Your task to perform on an android device: toggle show notifications on the lock screen Image 0: 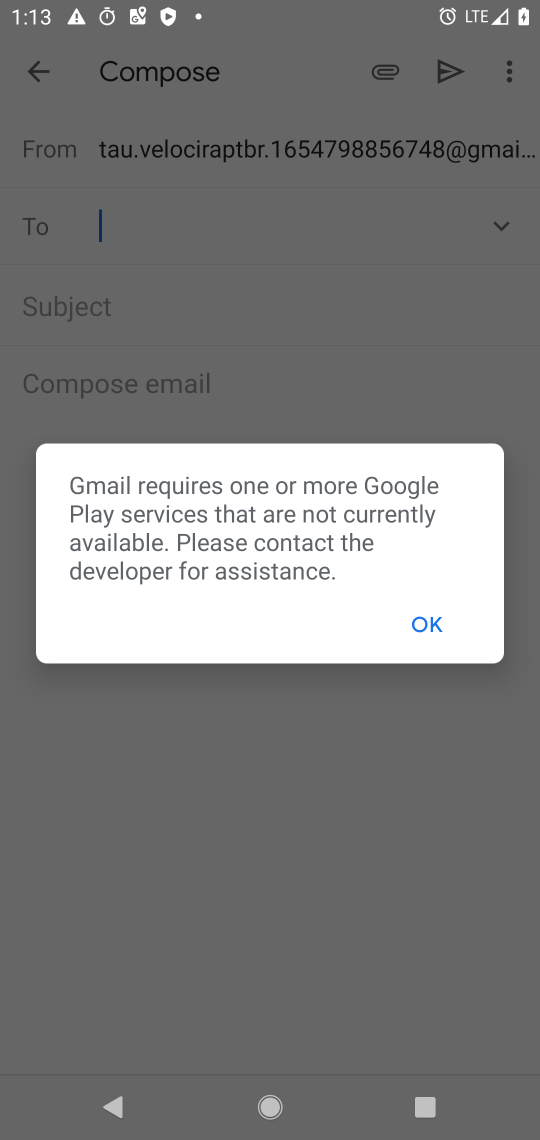
Step 0: press home button
Your task to perform on an android device: toggle show notifications on the lock screen Image 1: 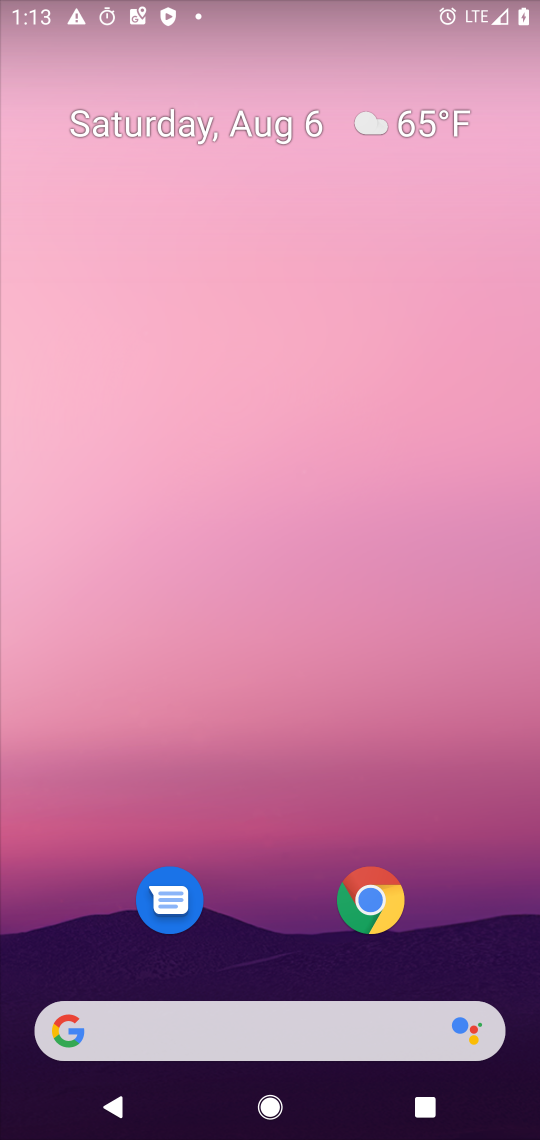
Step 1: drag from (262, 980) to (267, 157)
Your task to perform on an android device: toggle show notifications on the lock screen Image 2: 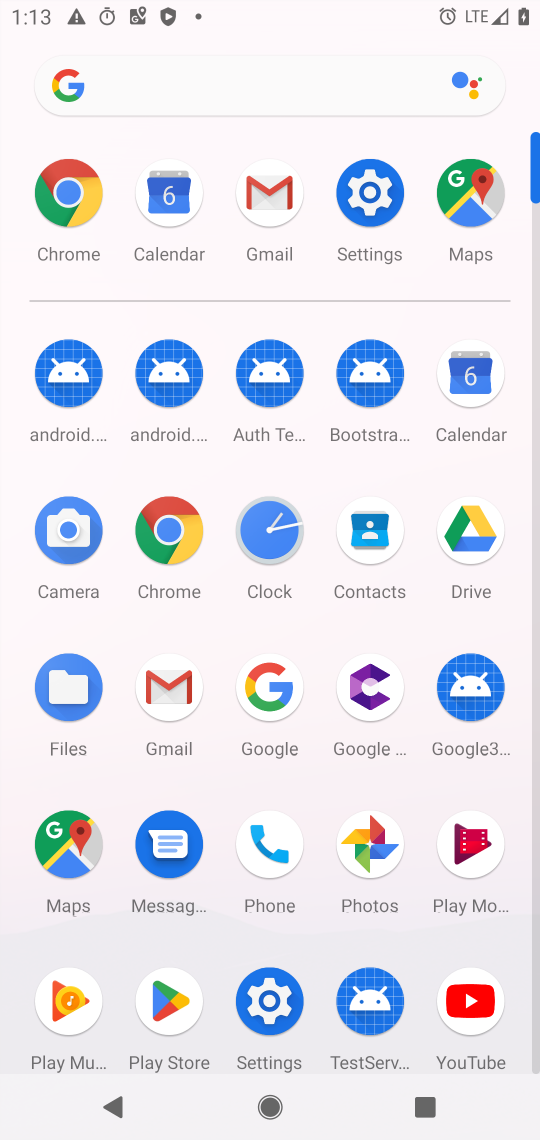
Step 2: click (364, 194)
Your task to perform on an android device: toggle show notifications on the lock screen Image 3: 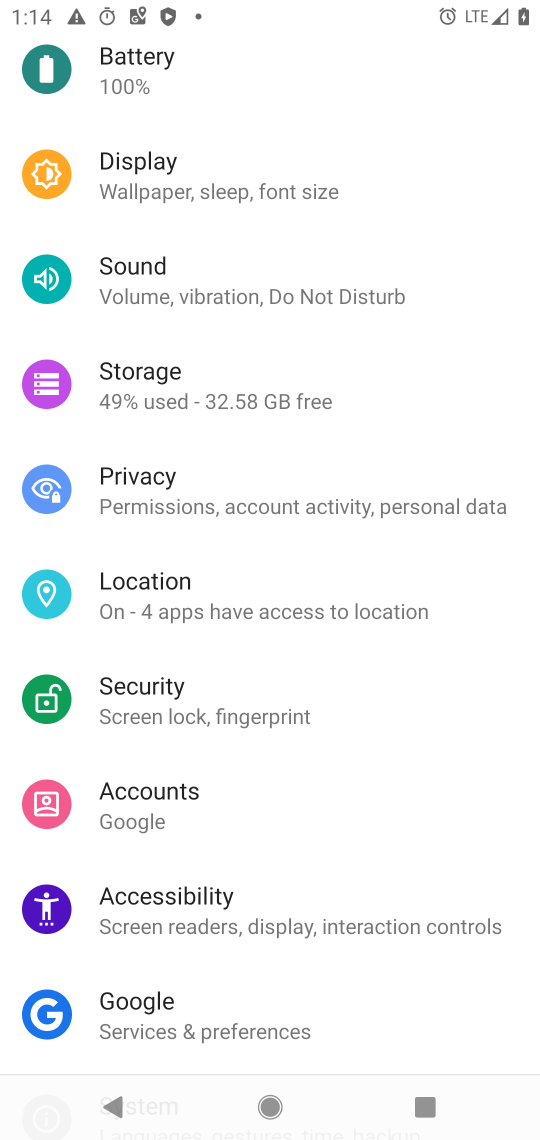
Step 3: drag from (252, 252) to (273, 836)
Your task to perform on an android device: toggle show notifications on the lock screen Image 4: 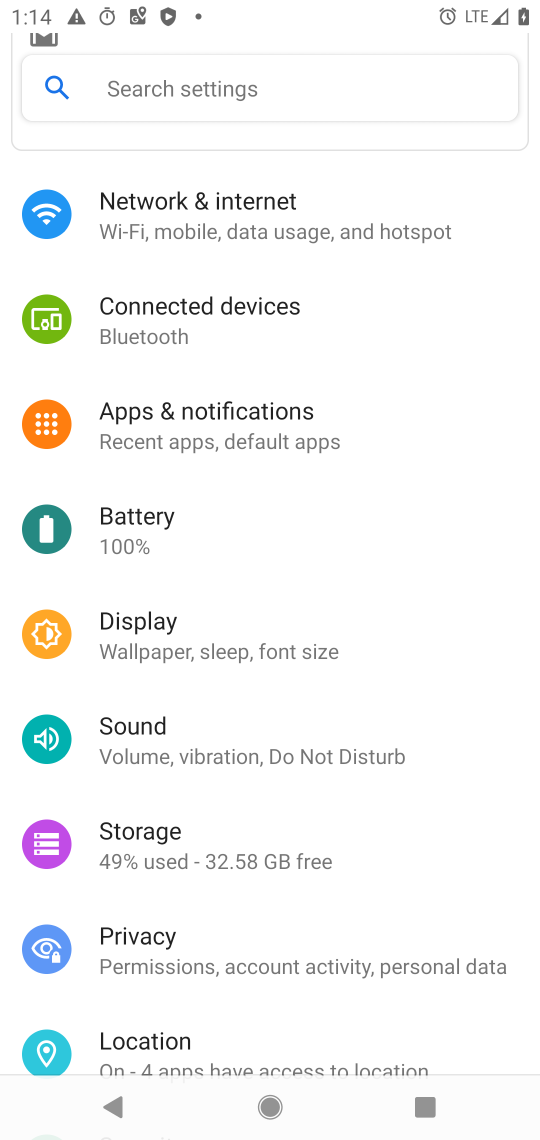
Step 4: click (182, 446)
Your task to perform on an android device: toggle show notifications on the lock screen Image 5: 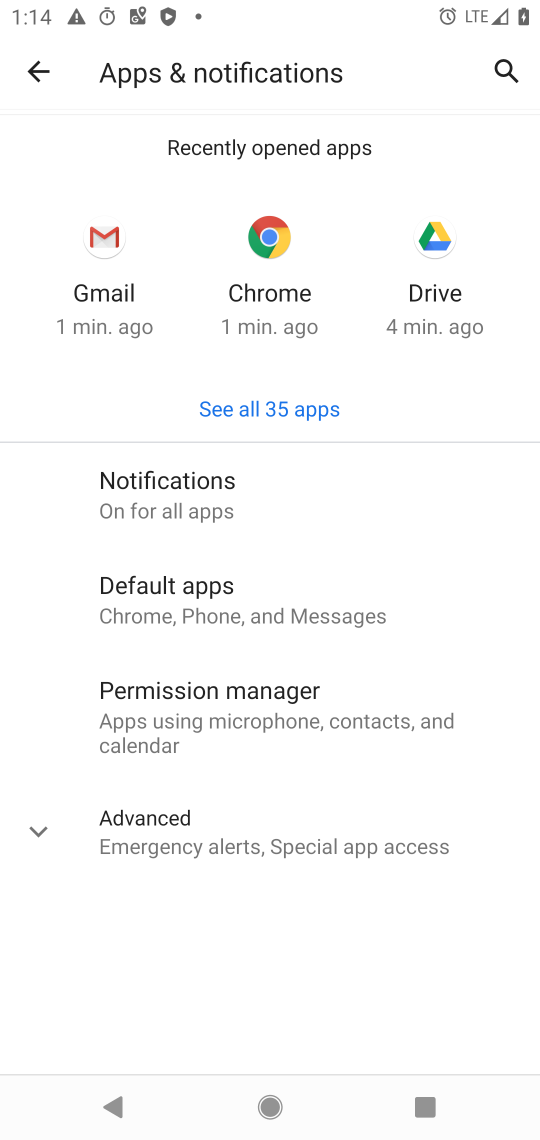
Step 5: click (169, 518)
Your task to perform on an android device: toggle show notifications on the lock screen Image 6: 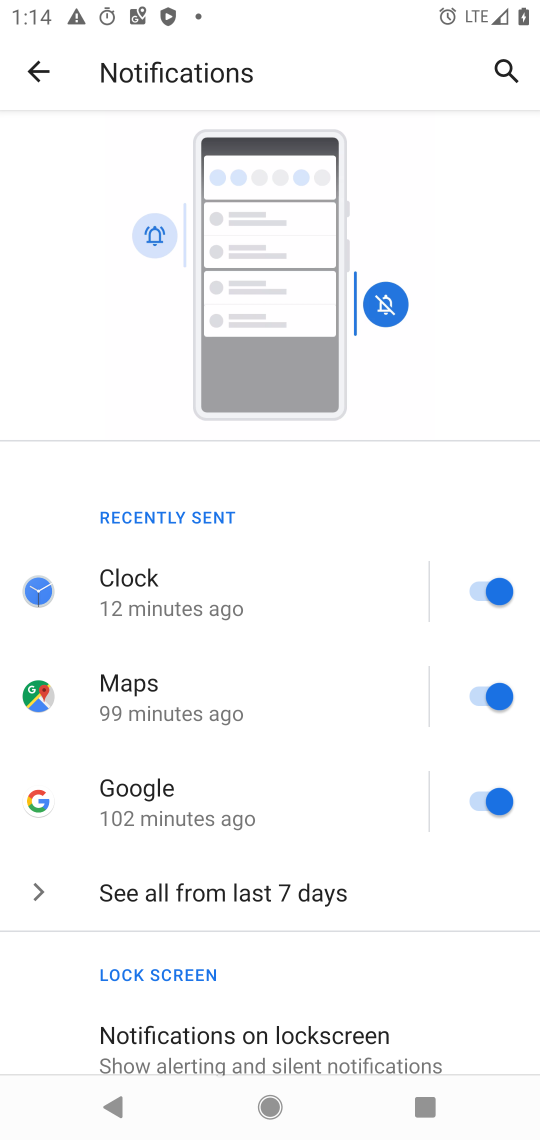
Step 6: click (193, 1049)
Your task to perform on an android device: toggle show notifications on the lock screen Image 7: 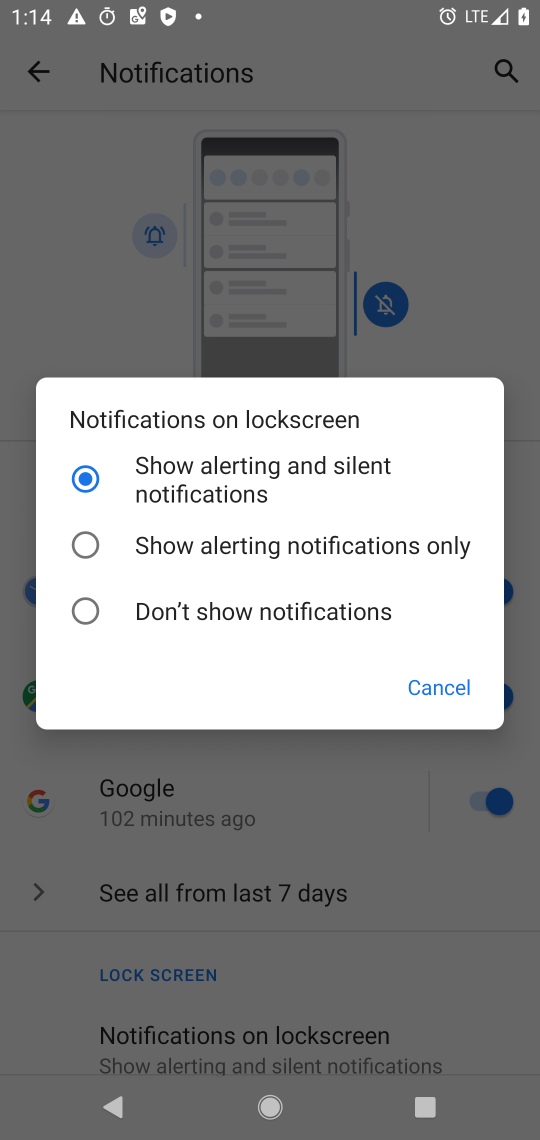
Step 7: click (87, 542)
Your task to perform on an android device: toggle show notifications on the lock screen Image 8: 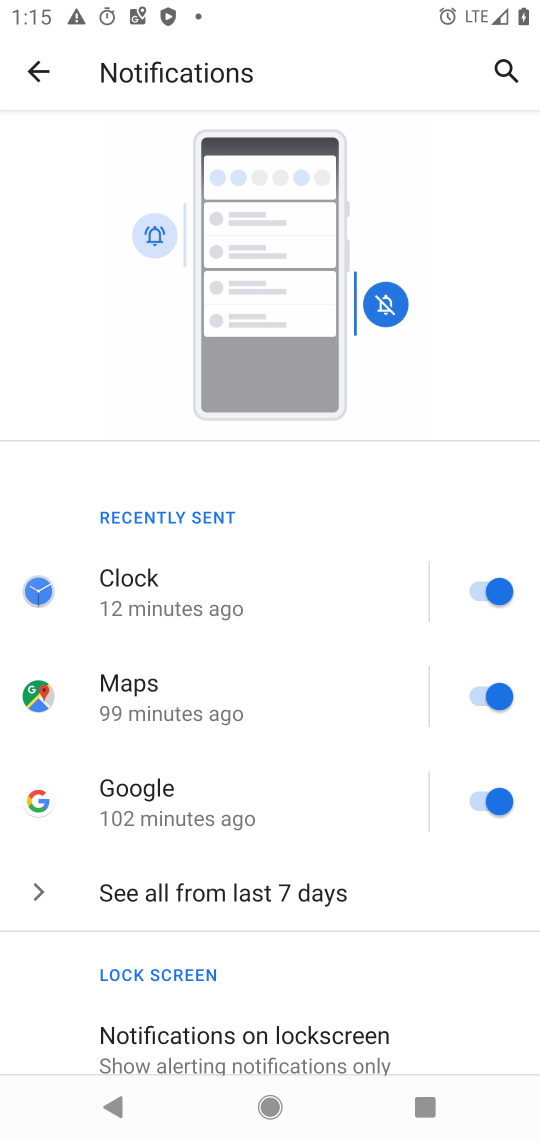
Step 8: task complete